Your task to perform on an android device: choose inbox layout in the gmail app Image 0: 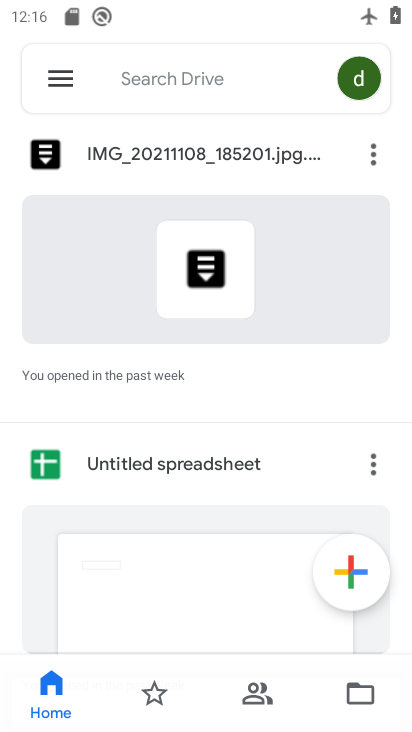
Step 0: press home button
Your task to perform on an android device: choose inbox layout in the gmail app Image 1: 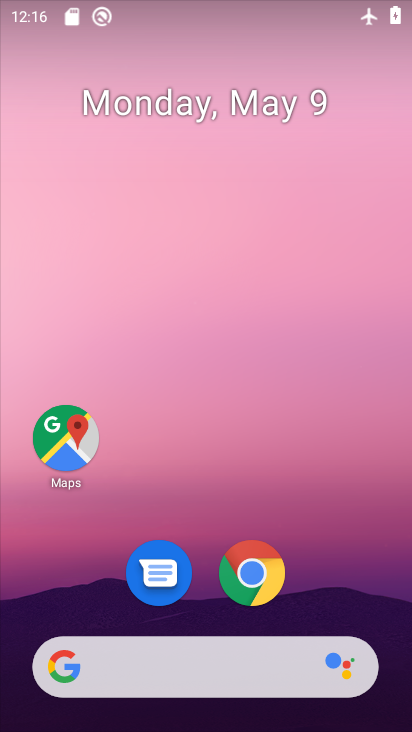
Step 1: drag from (220, 643) to (297, 227)
Your task to perform on an android device: choose inbox layout in the gmail app Image 2: 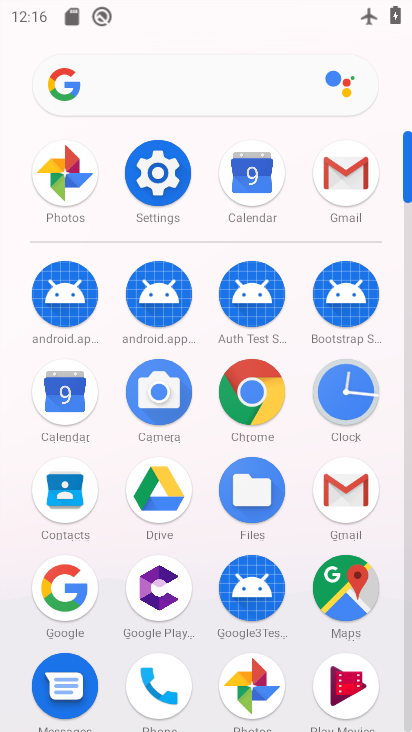
Step 2: click (333, 173)
Your task to perform on an android device: choose inbox layout in the gmail app Image 3: 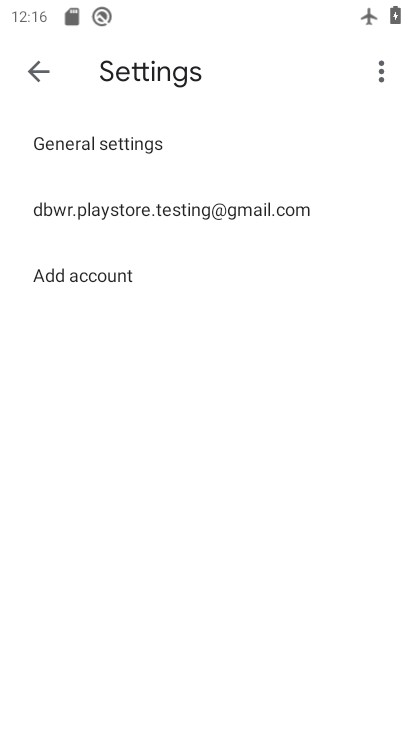
Step 3: click (77, 210)
Your task to perform on an android device: choose inbox layout in the gmail app Image 4: 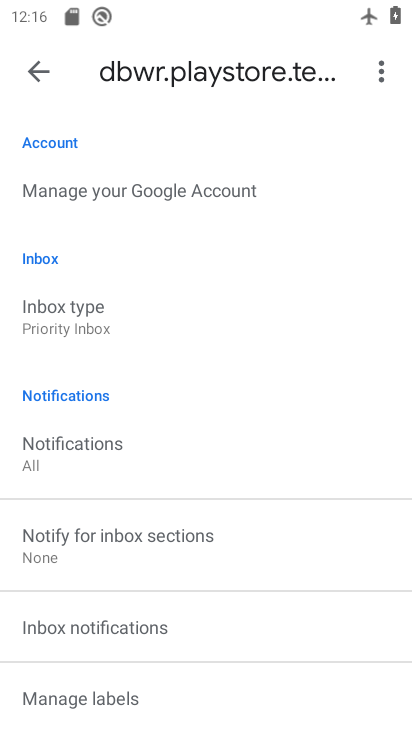
Step 4: click (71, 320)
Your task to perform on an android device: choose inbox layout in the gmail app Image 5: 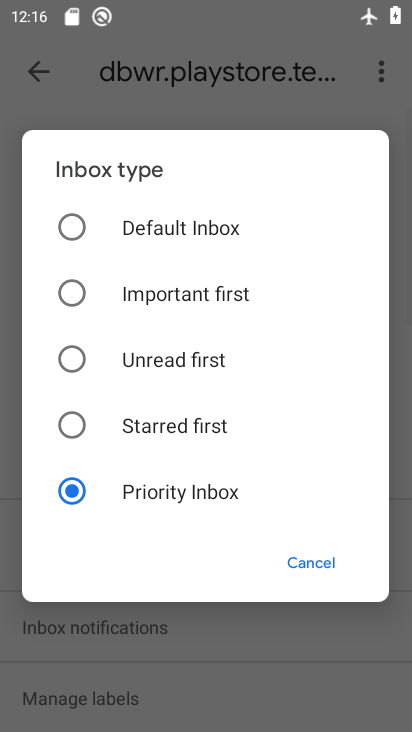
Step 5: click (77, 229)
Your task to perform on an android device: choose inbox layout in the gmail app Image 6: 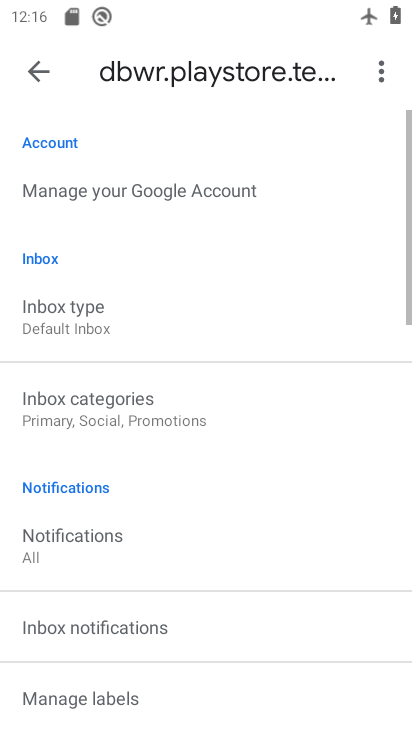
Step 6: task complete